Your task to perform on an android device: turn off priority inbox in the gmail app Image 0: 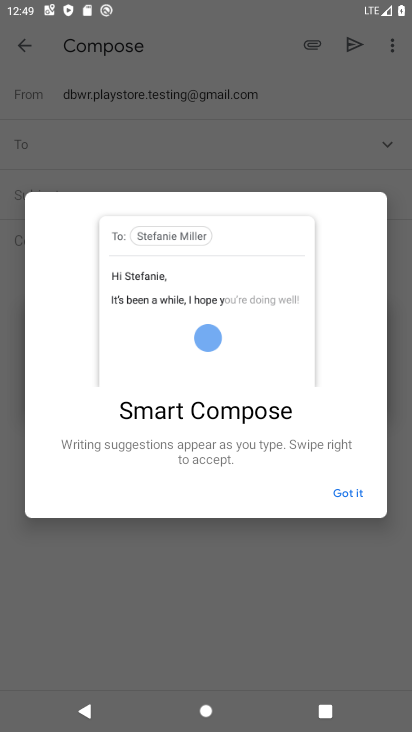
Step 0: press home button
Your task to perform on an android device: turn off priority inbox in the gmail app Image 1: 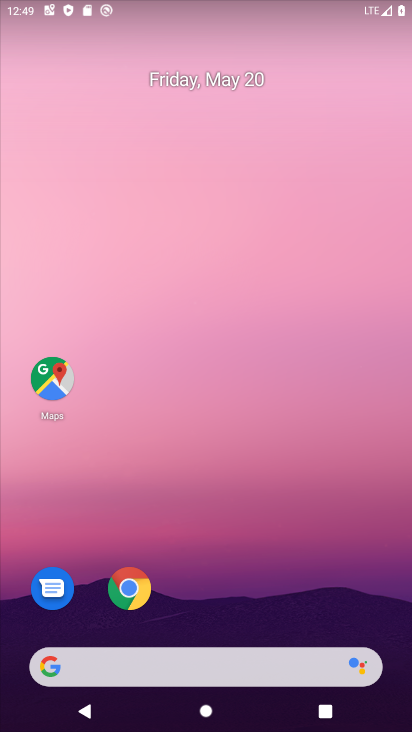
Step 1: drag from (345, 532) to (290, 42)
Your task to perform on an android device: turn off priority inbox in the gmail app Image 2: 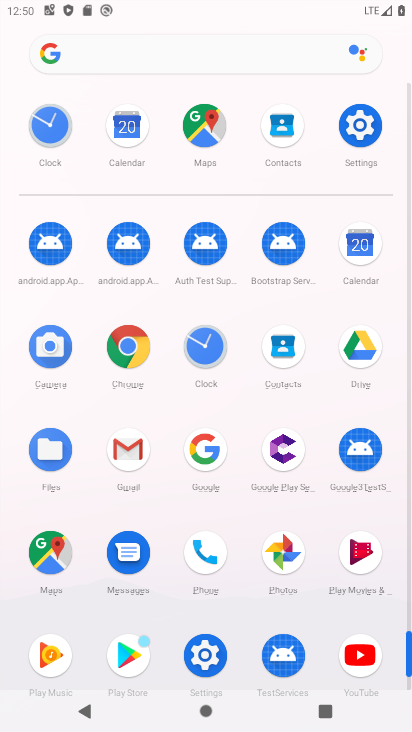
Step 2: click (124, 450)
Your task to perform on an android device: turn off priority inbox in the gmail app Image 3: 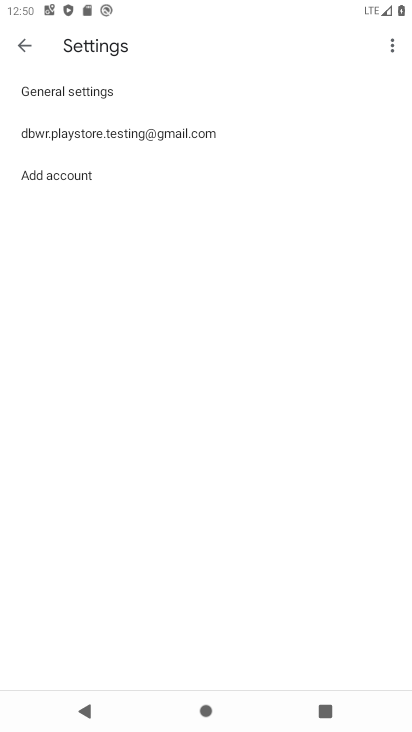
Step 3: click (115, 137)
Your task to perform on an android device: turn off priority inbox in the gmail app Image 4: 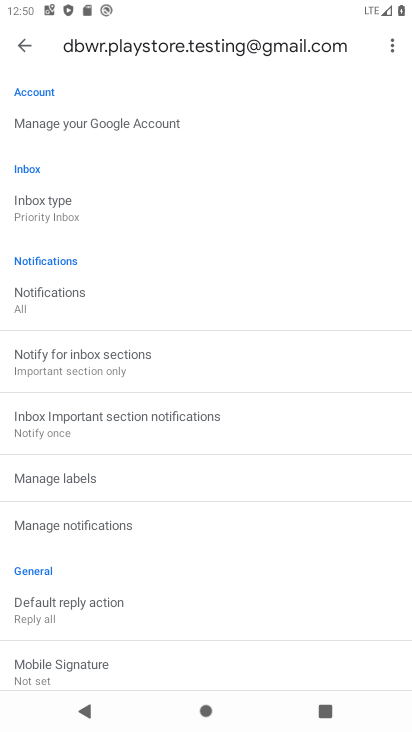
Step 4: click (41, 201)
Your task to perform on an android device: turn off priority inbox in the gmail app Image 5: 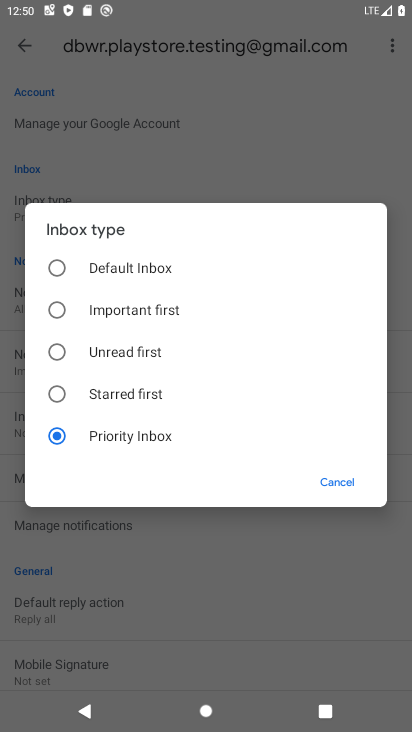
Step 5: click (55, 266)
Your task to perform on an android device: turn off priority inbox in the gmail app Image 6: 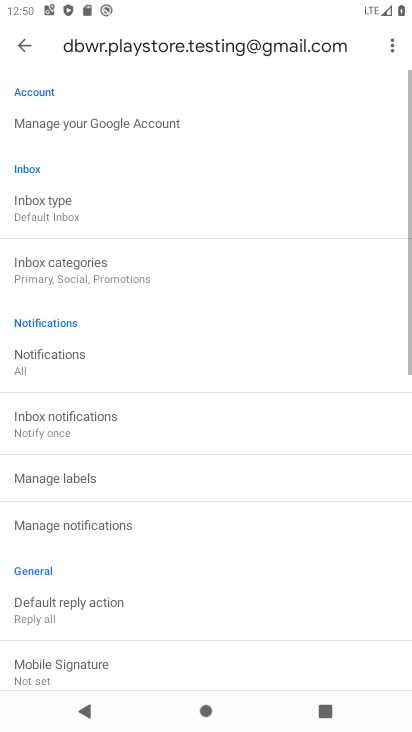
Step 6: task complete